Your task to perform on an android device: Open Wikipedia Image 0: 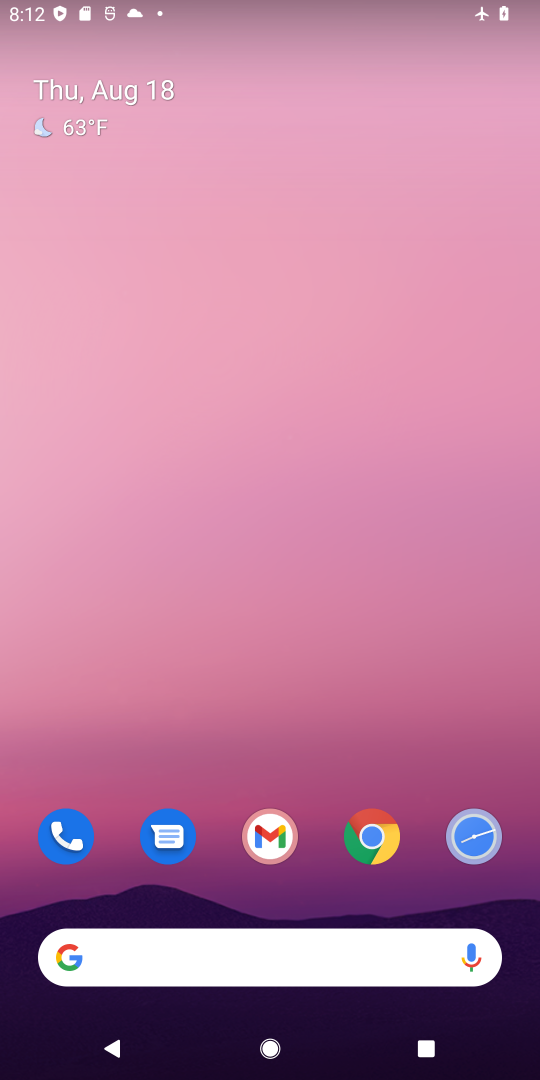
Step 0: drag from (363, 765) to (274, 22)
Your task to perform on an android device: Open Wikipedia Image 1: 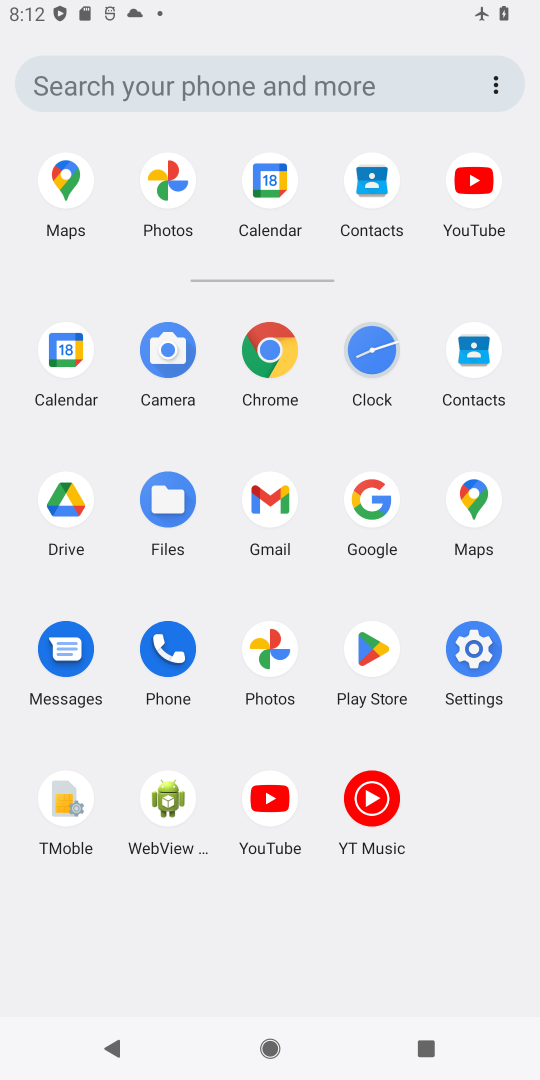
Step 1: click (270, 343)
Your task to perform on an android device: Open Wikipedia Image 2: 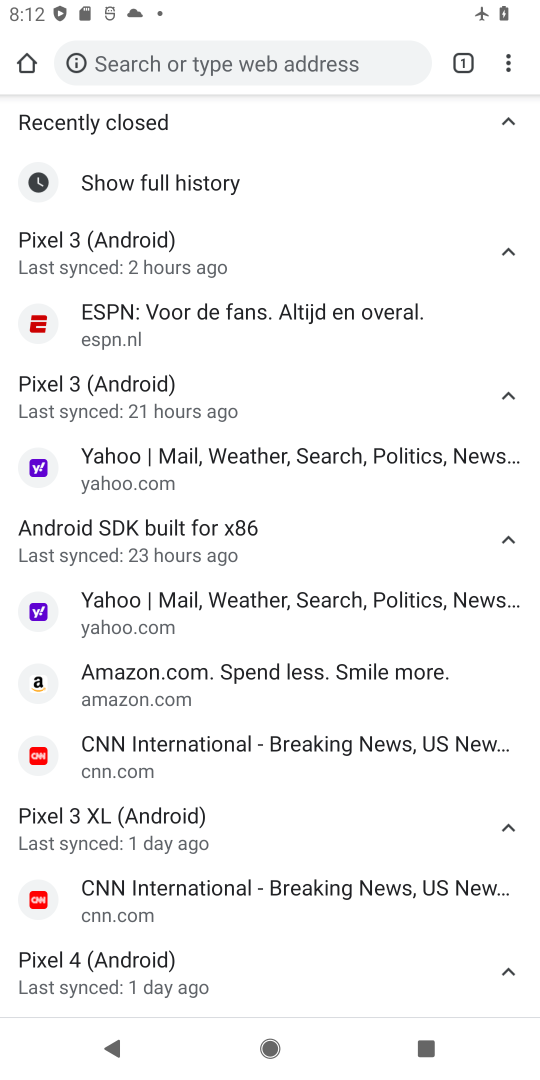
Step 2: click (367, 55)
Your task to perform on an android device: Open Wikipedia Image 3: 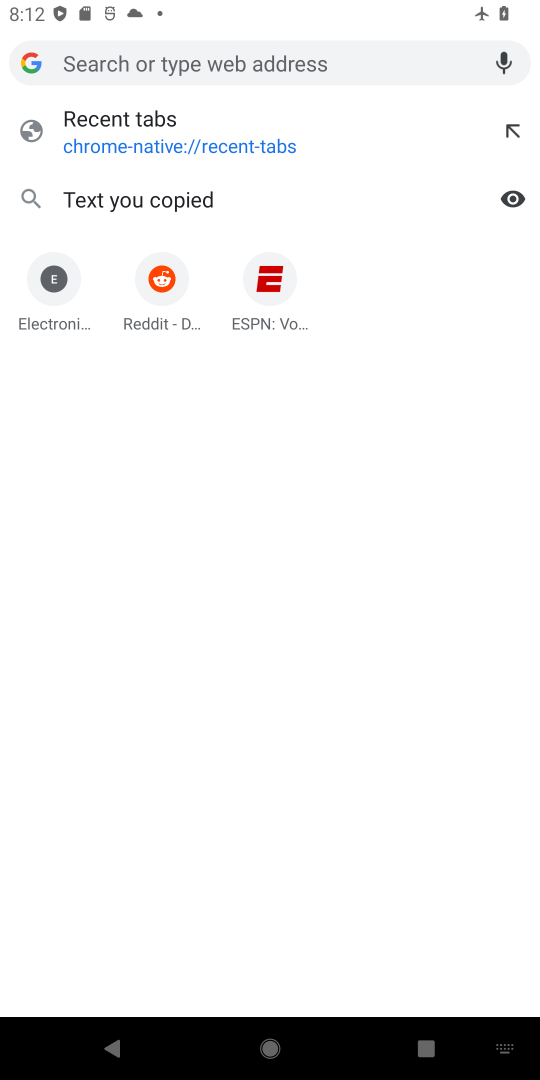
Step 3: type "wikipedia"
Your task to perform on an android device: Open Wikipedia Image 4: 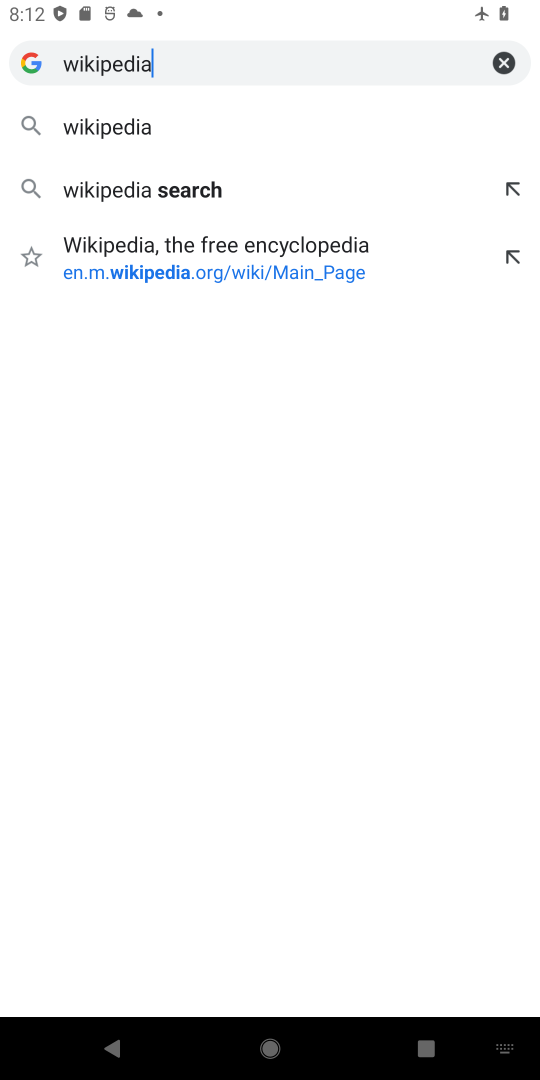
Step 4: click (105, 129)
Your task to perform on an android device: Open Wikipedia Image 5: 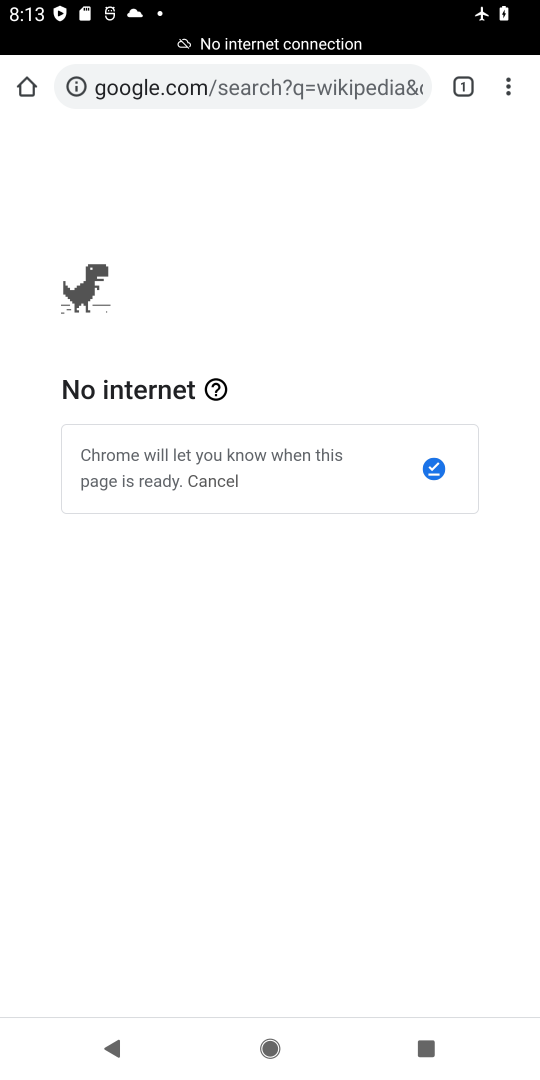
Step 5: task complete